Your task to perform on an android device: Search for sushi restaurants on Maps Image 0: 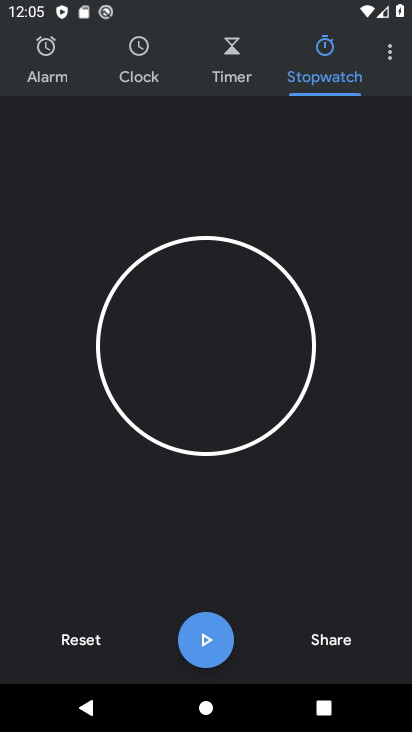
Step 0: press home button
Your task to perform on an android device: Search for sushi restaurants on Maps Image 1: 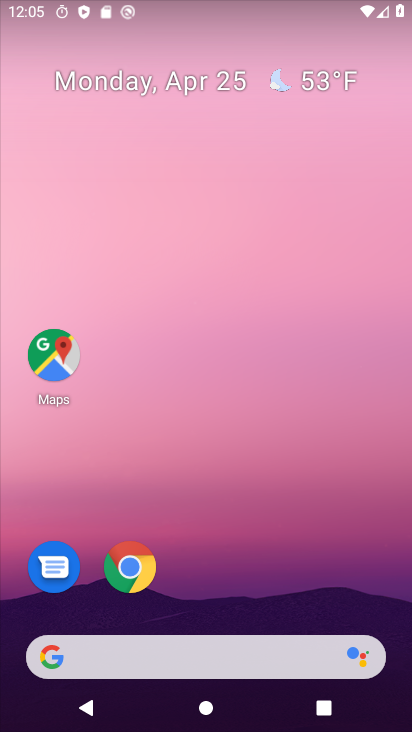
Step 1: click (50, 356)
Your task to perform on an android device: Search for sushi restaurants on Maps Image 2: 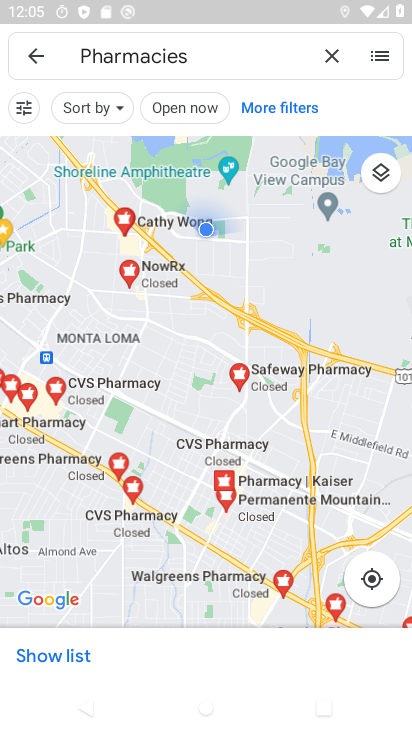
Step 2: click (331, 52)
Your task to perform on an android device: Search for sushi restaurants on Maps Image 3: 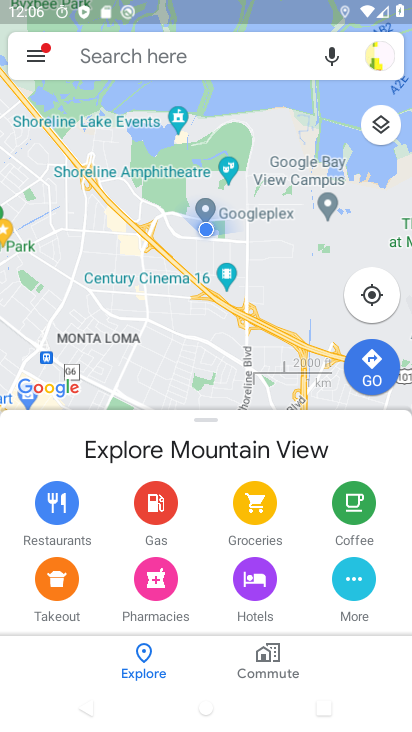
Step 3: click (291, 58)
Your task to perform on an android device: Search for sushi restaurants on Maps Image 4: 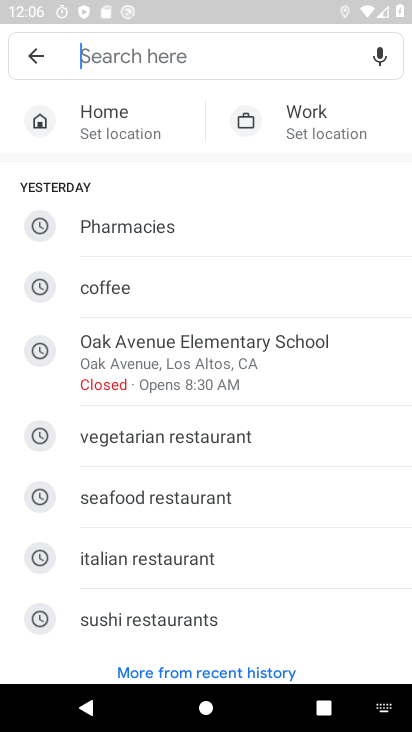
Step 4: click (186, 615)
Your task to perform on an android device: Search for sushi restaurants on Maps Image 5: 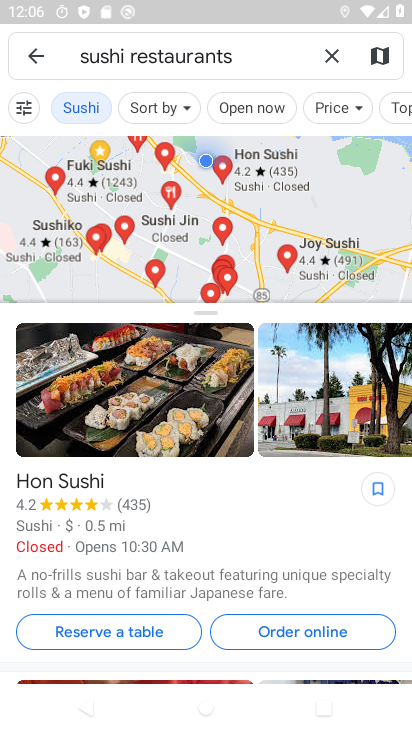
Step 5: task complete